Your task to perform on an android device: change text size in settings app Image 0: 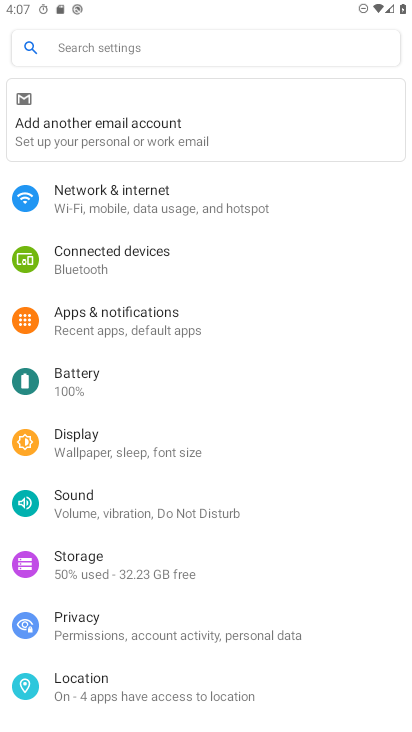
Step 0: press home button
Your task to perform on an android device: change text size in settings app Image 1: 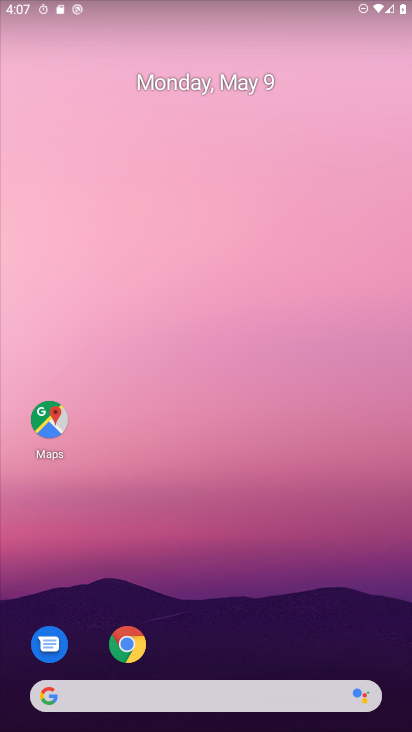
Step 1: drag from (263, 605) to (255, 151)
Your task to perform on an android device: change text size in settings app Image 2: 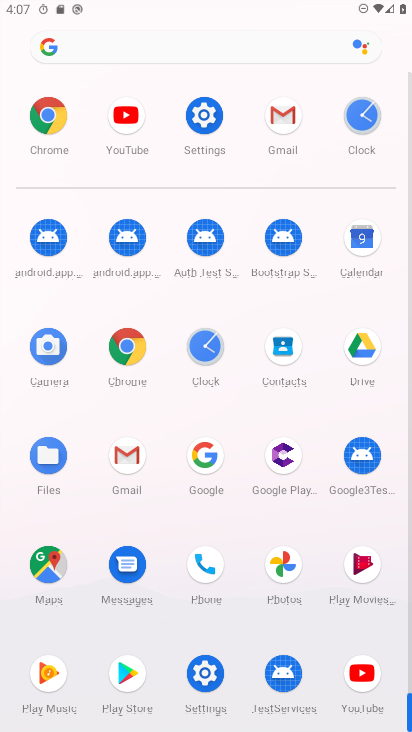
Step 2: click (200, 688)
Your task to perform on an android device: change text size in settings app Image 3: 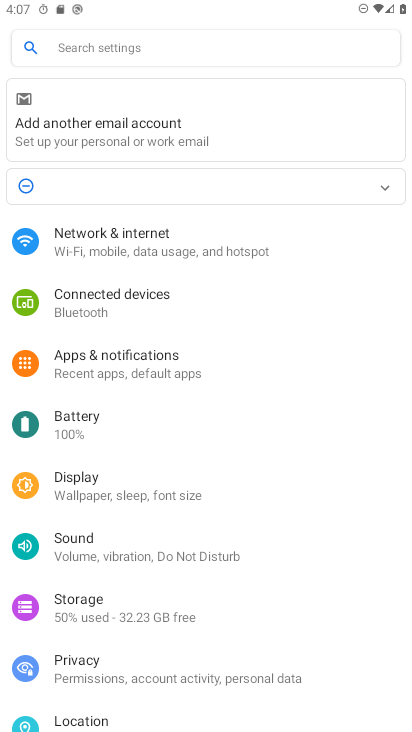
Step 3: click (74, 496)
Your task to perform on an android device: change text size in settings app Image 4: 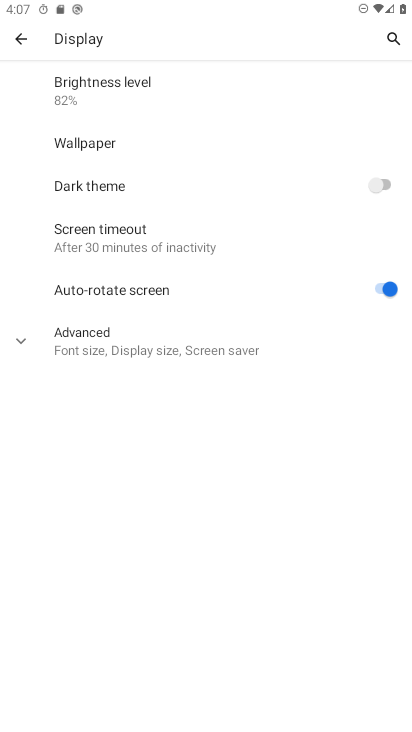
Step 4: click (99, 345)
Your task to perform on an android device: change text size in settings app Image 5: 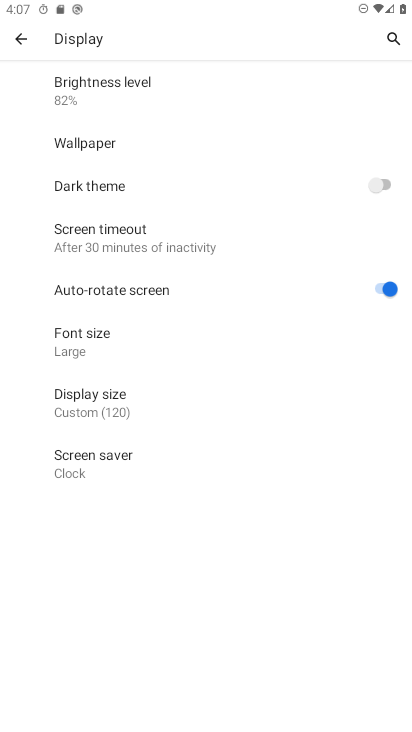
Step 5: click (83, 357)
Your task to perform on an android device: change text size in settings app Image 6: 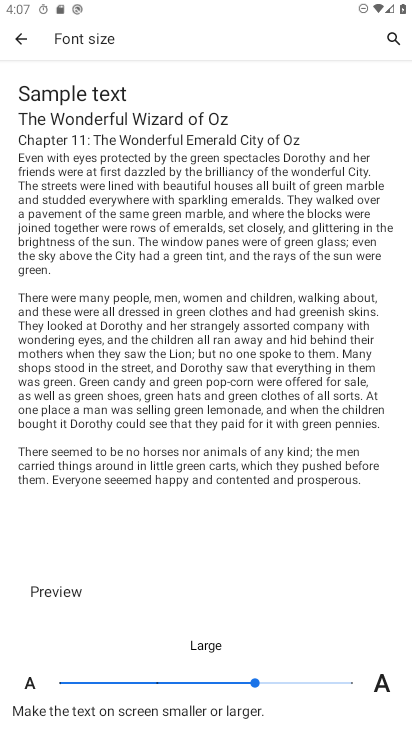
Step 6: click (348, 681)
Your task to perform on an android device: change text size in settings app Image 7: 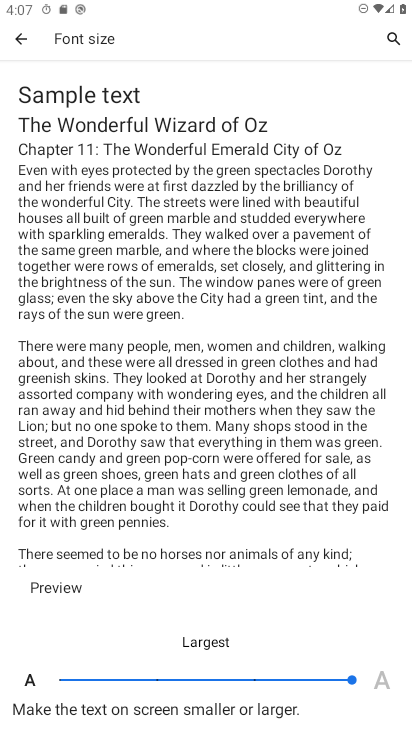
Step 7: task complete